Your task to perform on an android device: Do I have any events this weekend? Image 0: 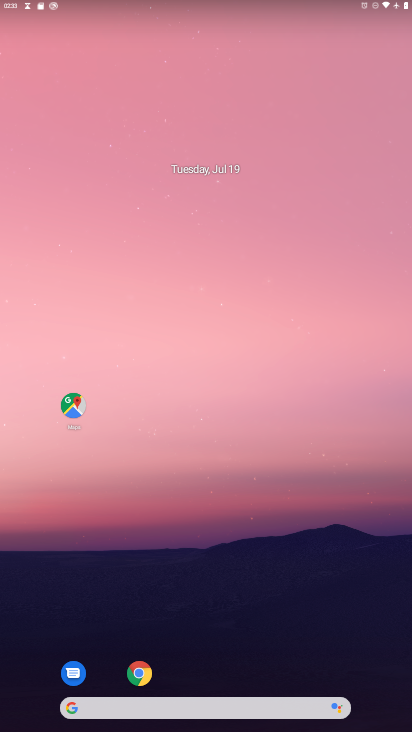
Step 0: drag from (177, 617) to (185, 170)
Your task to perform on an android device: Do I have any events this weekend? Image 1: 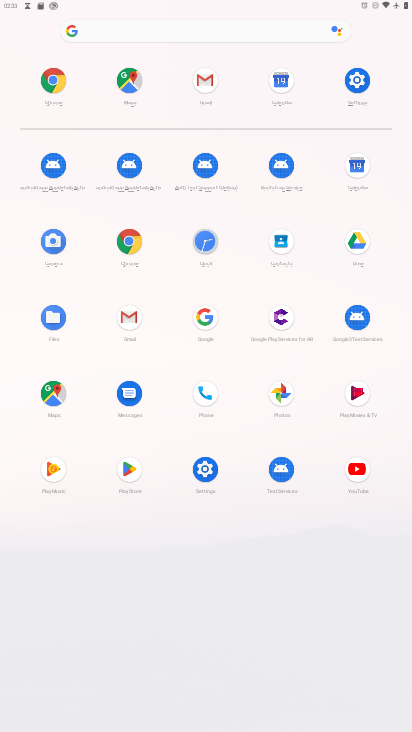
Step 1: click (361, 157)
Your task to perform on an android device: Do I have any events this weekend? Image 2: 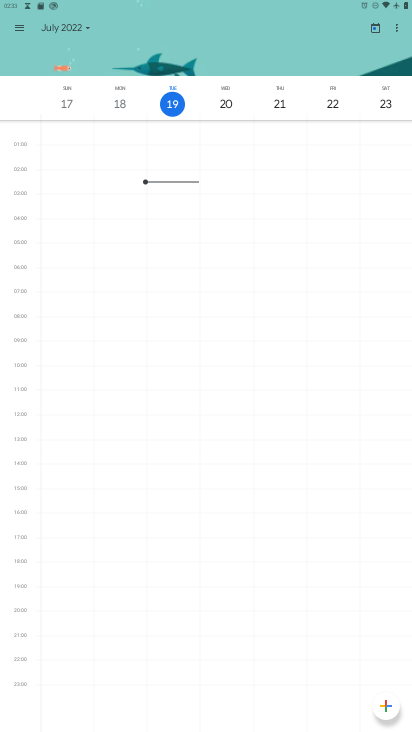
Step 2: click (29, 26)
Your task to perform on an android device: Do I have any events this weekend? Image 3: 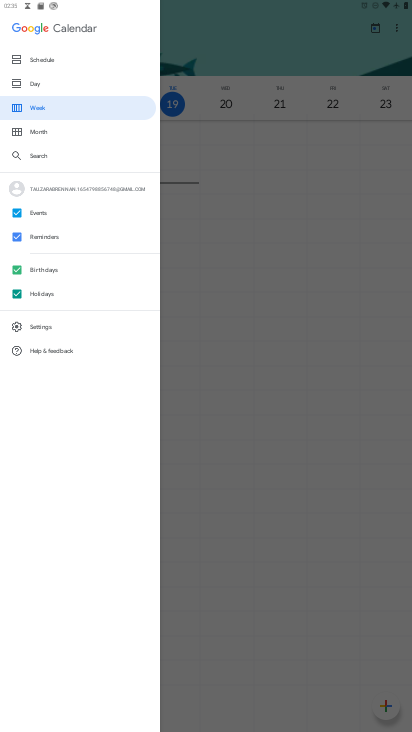
Step 3: click (46, 92)
Your task to perform on an android device: Do I have any events this weekend? Image 4: 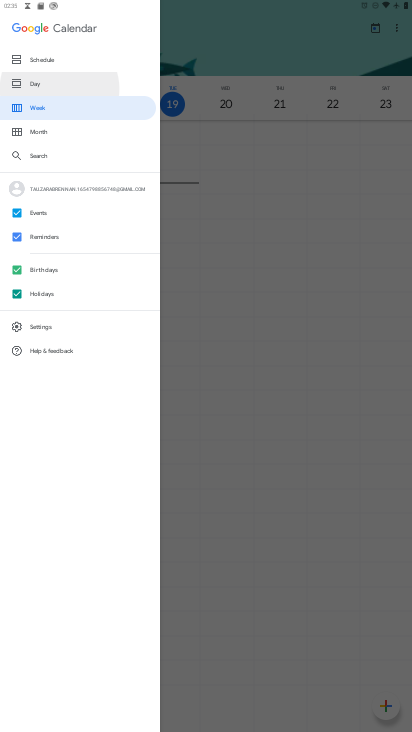
Step 4: click (46, 101)
Your task to perform on an android device: Do I have any events this weekend? Image 5: 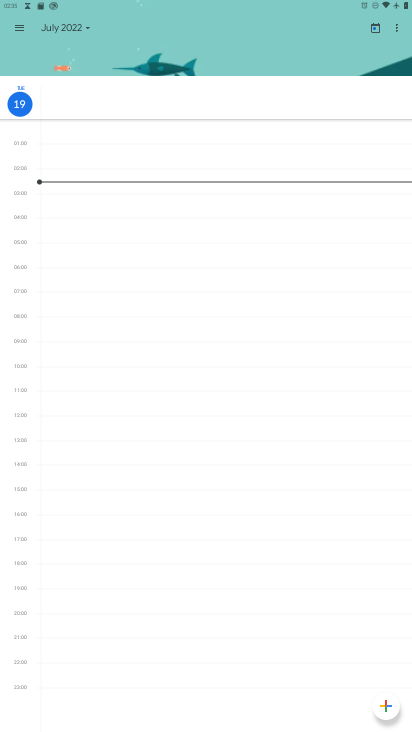
Step 5: click (17, 24)
Your task to perform on an android device: Do I have any events this weekend? Image 6: 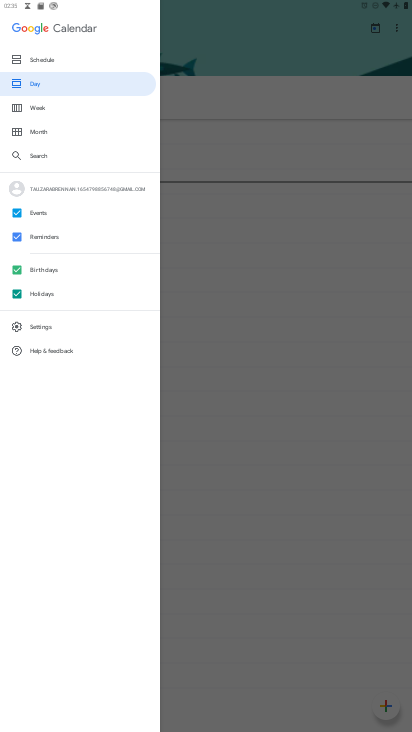
Step 6: click (33, 128)
Your task to perform on an android device: Do I have any events this weekend? Image 7: 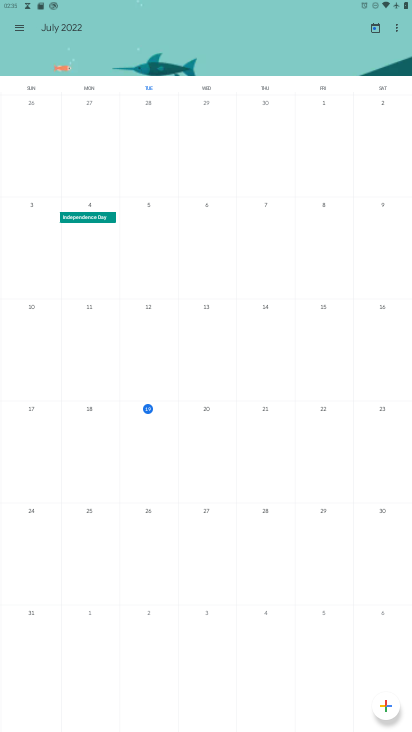
Step 7: click (21, 31)
Your task to perform on an android device: Do I have any events this weekend? Image 8: 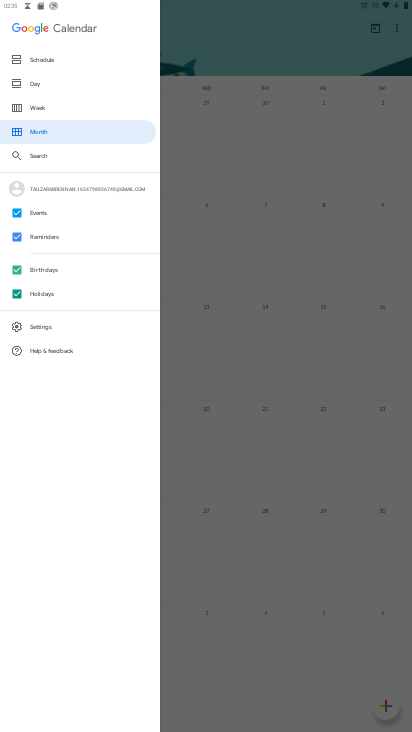
Step 8: click (56, 103)
Your task to perform on an android device: Do I have any events this weekend? Image 9: 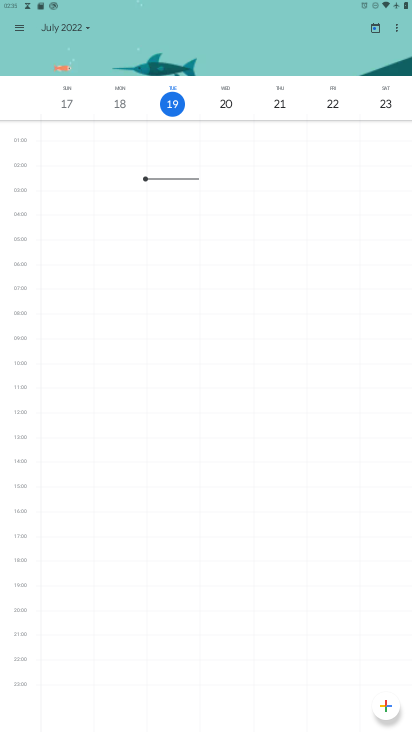
Step 9: task complete